Your task to perform on an android device: Toggle the flashlight Image 0: 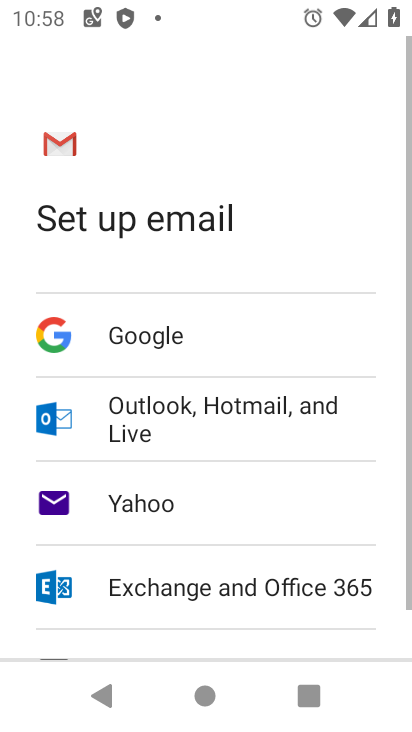
Step 0: press home button
Your task to perform on an android device: Toggle the flashlight Image 1: 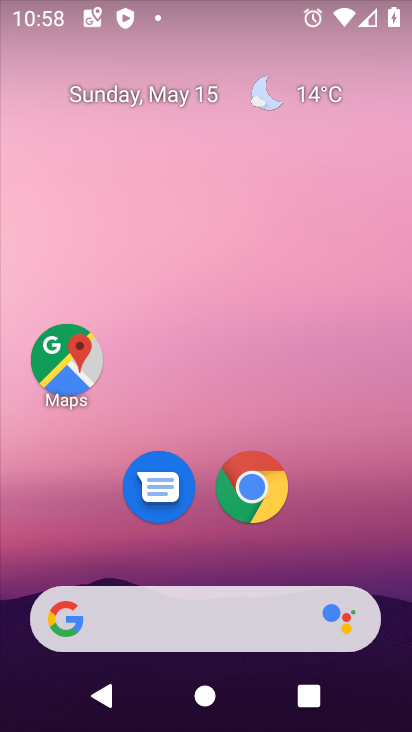
Step 1: drag from (403, 622) to (316, 89)
Your task to perform on an android device: Toggle the flashlight Image 2: 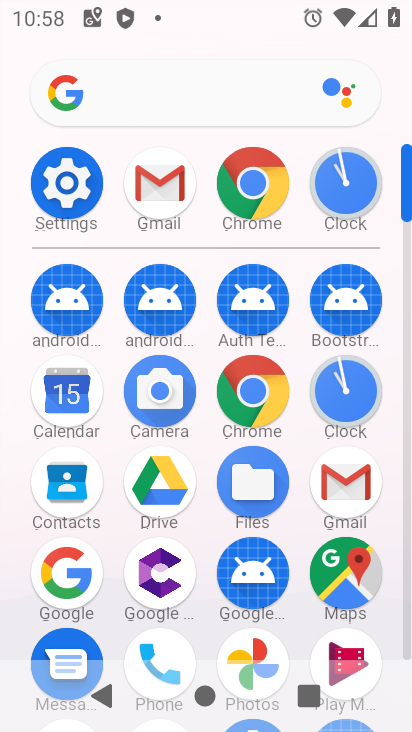
Step 2: click (406, 644)
Your task to perform on an android device: Toggle the flashlight Image 3: 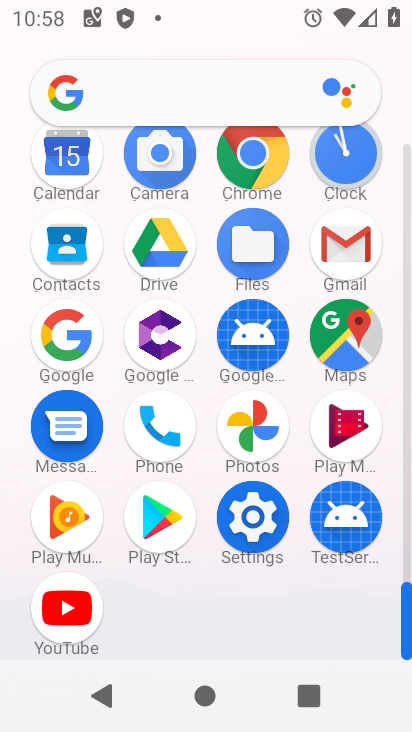
Step 3: click (251, 521)
Your task to perform on an android device: Toggle the flashlight Image 4: 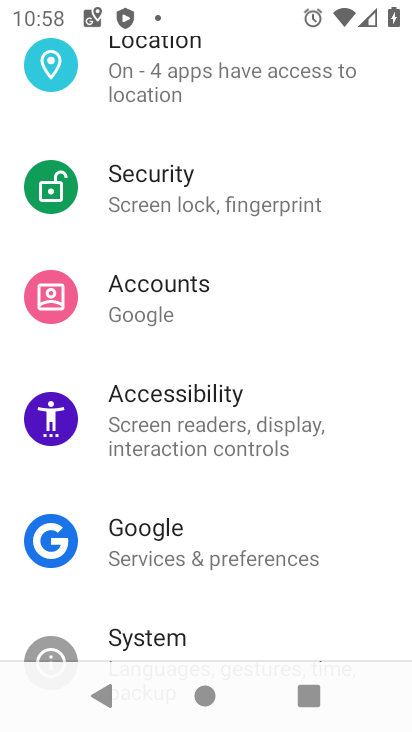
Step 4: drag from (362, 229) to (357, 559)
Your task to perform on an android device: Toggle the flashlight Image 5: 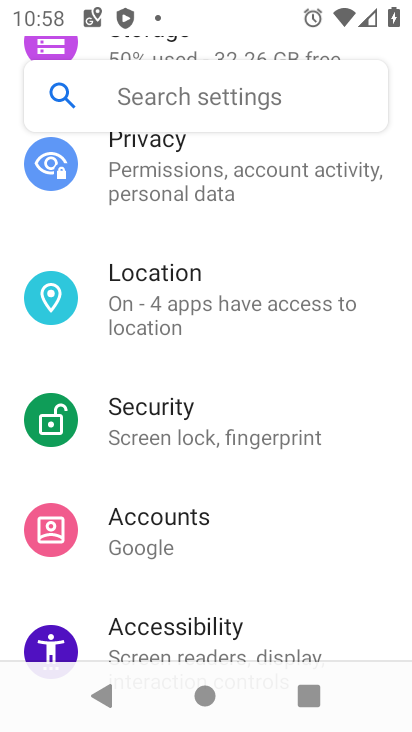
Step 5: drag from (371, 169) to (345, 478)
Your task to perform on an android device: Toggle the flashlight Image 6: 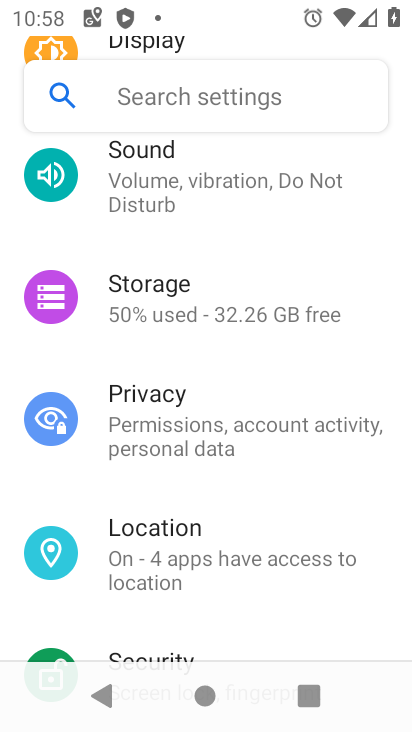
Step 6: drag from (355, 224) to (358, 559)
Your task to perform on an android device: Toggle the flashlight Image 7: 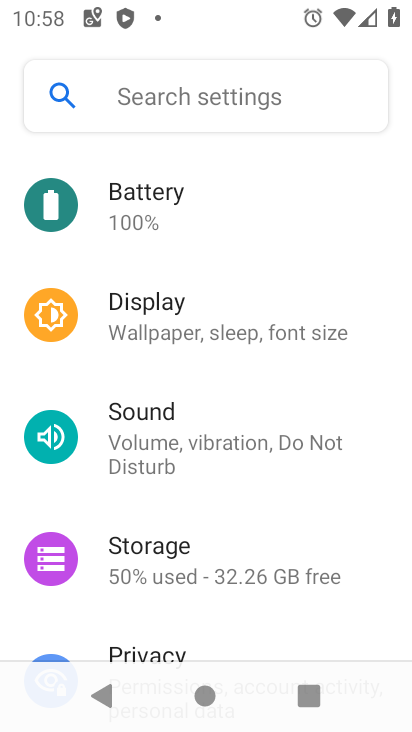
Step 7: drag from (349, 254) to (336, 607)
Your task to perform on an android device: Toggle the flashlight Image 8: 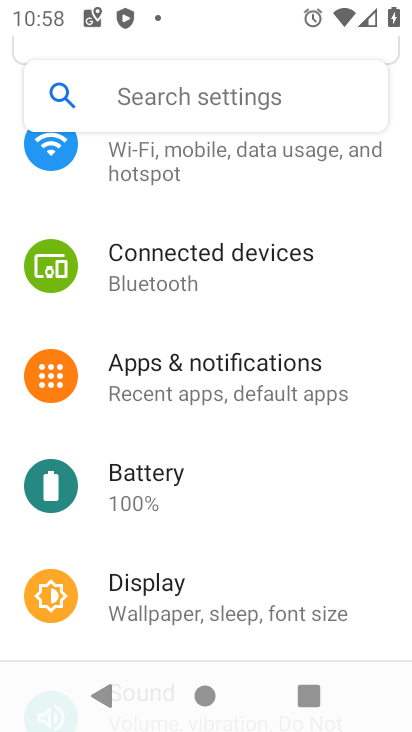
Step 8: drag from (345, 208) to (347, 533)
Your task to perform on an android device: Toggle the flashlight Image 9: 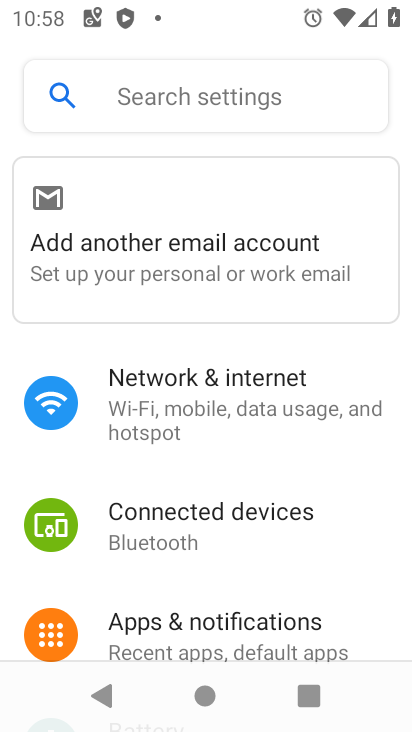
Step 9: click (140, 385)
Your task to perform on an android device: Toggle the flashlight Image 10: 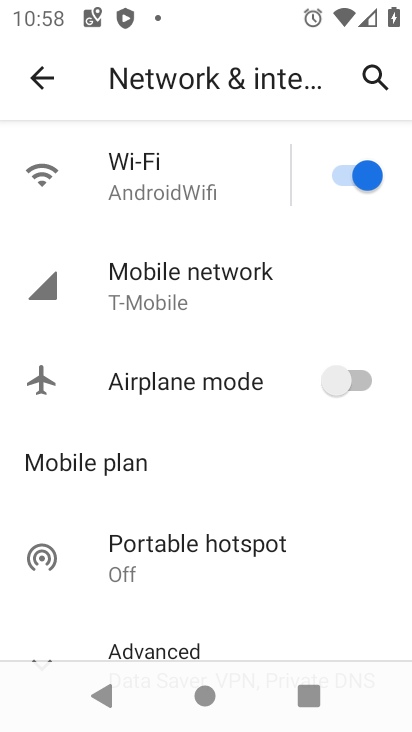
Step 10: press home button
Your task to perform on an android device: Toggle the flashlight Image 11: 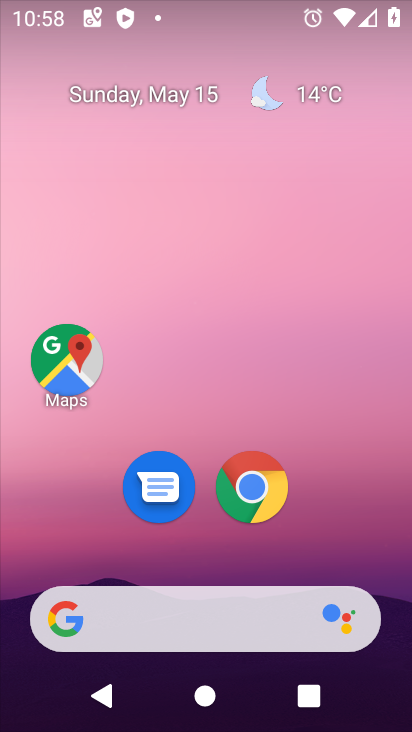
Step 11: drag from (226, 14) to (294, 461)
Your task to perform on an android device: Toggle the flashlight Image 12: 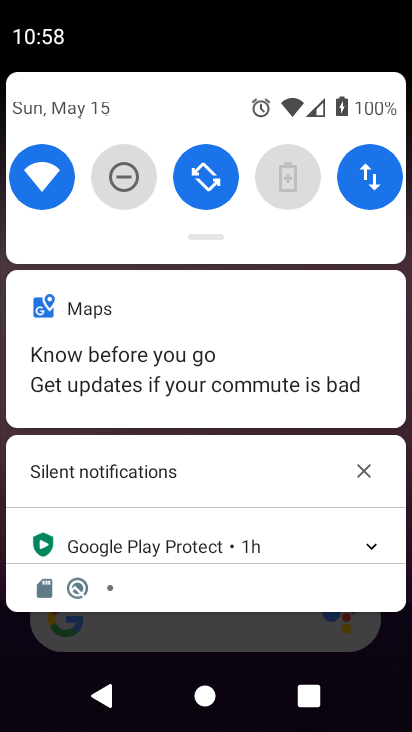
Step 12: drag from (202, 236) to (242, 559)
Your task to perform on an android device: Toggle the flashlight Image 13: 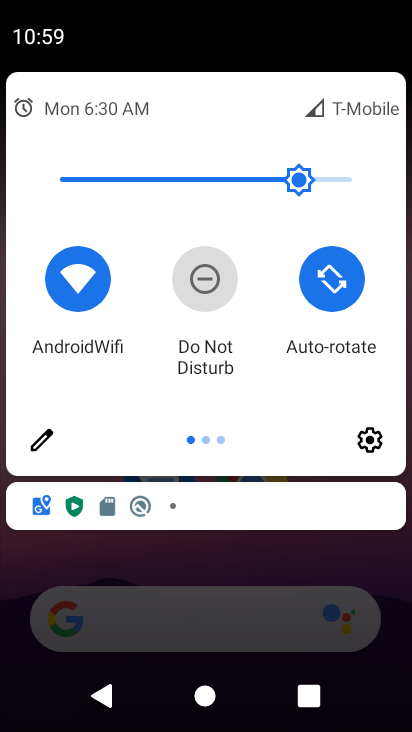
Step 13: click (39, 436)
Your task to perform on an android device: Toggle the flashlight Image 14: 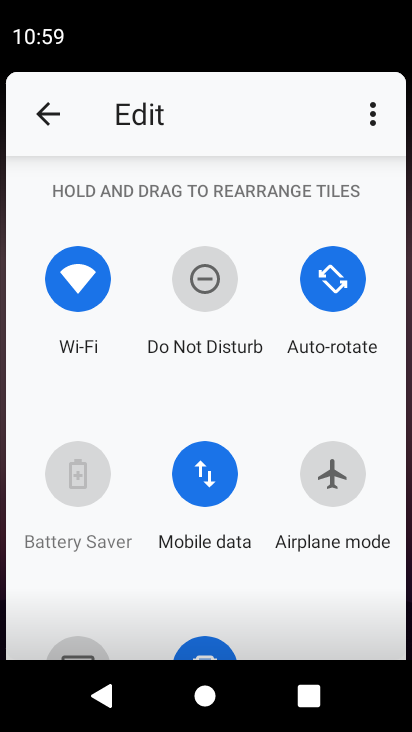
Step 14: task complete